Your task to perform on an android device: Go to Google maps Image 0: 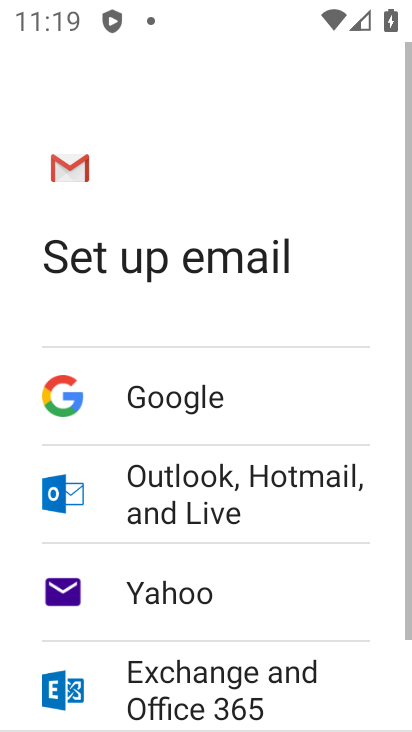
Step 0: press home button
Your task to perform on an android device: Go to Google maps Image 1: 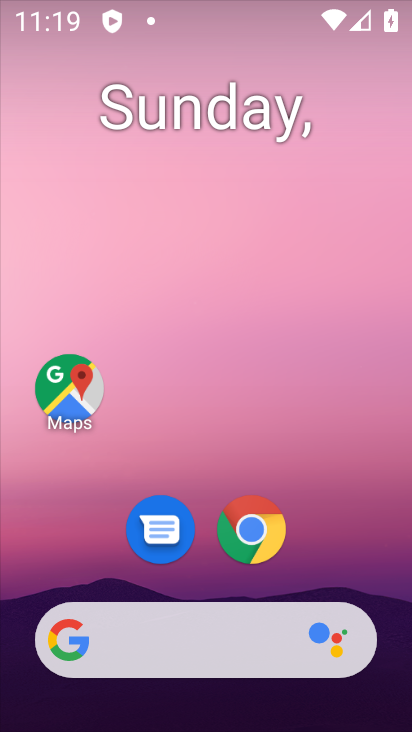
Step 1: drag from (383, 535) to (299, 9)
Your task to perform on an android device: Go to Google maps Image 2: 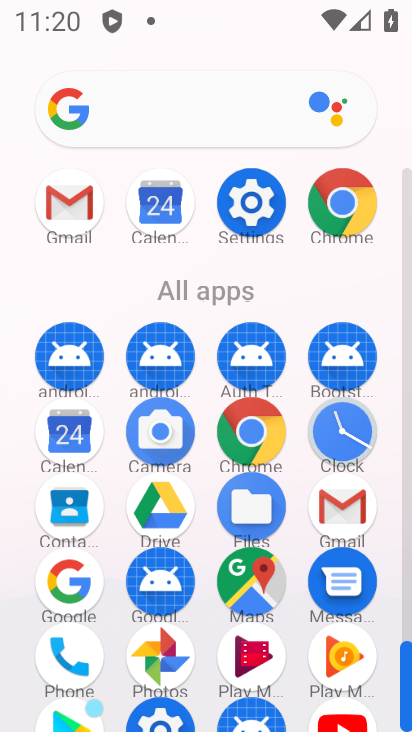
Step 2: click (248, 598)
Your task to perform on an android device: Go to Google maps Image 3: 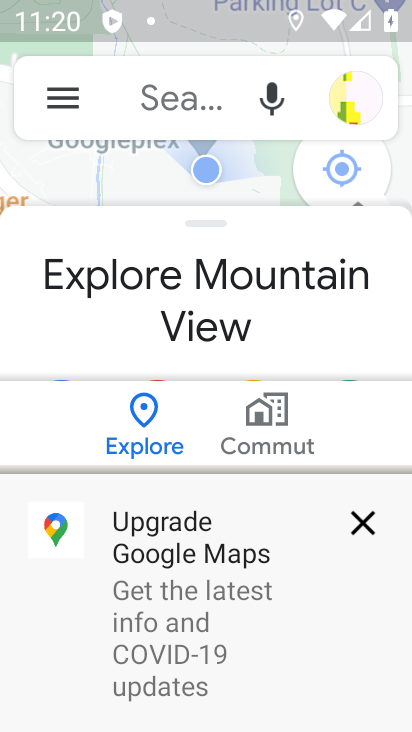
Step 3: task complete